Your task to perform on an android device: change notifications settings Image 0: 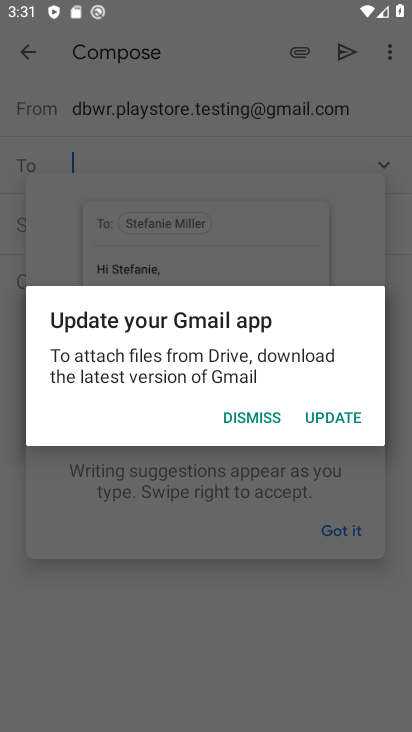
Step 0: press home button
Your task to perform on an android device: change notifications settings Image 1: 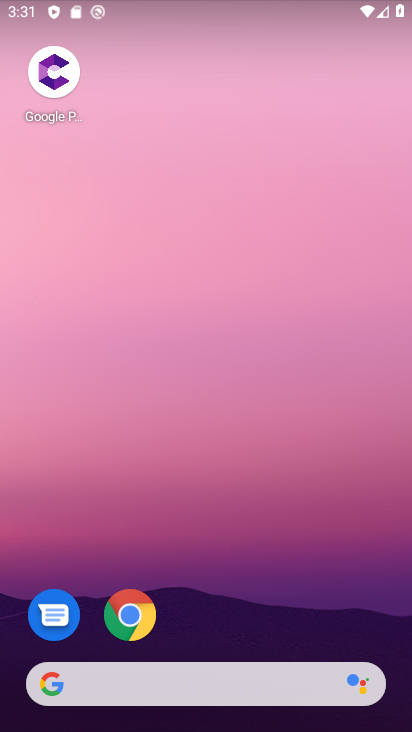
Step 1: drag from (261, 645) to (292, 3)
Your task to perform on an android device: change notifications settings Image 2: 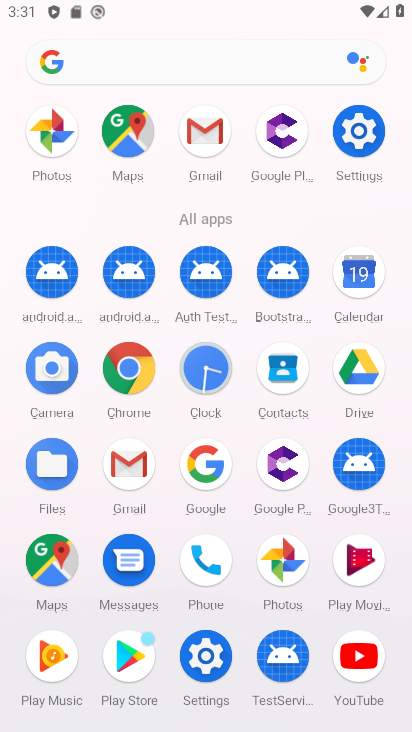
Step 2: click (353, 125)
Your task to perform on an android device: change notifications settings Image 3: 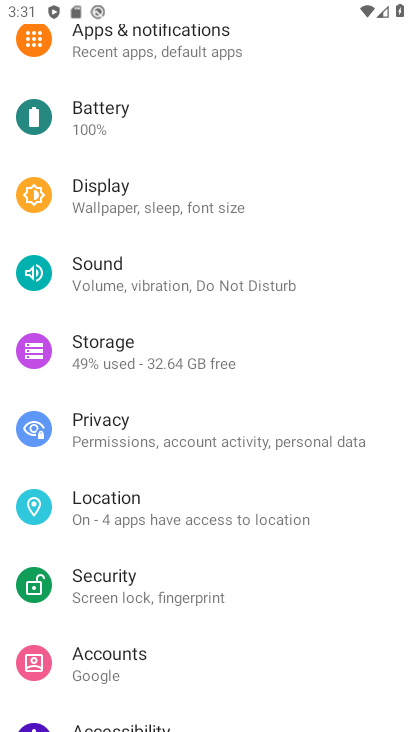
Step 3: click (158, 53)
Your task to perform on an android device: change notifications settings Image 4: 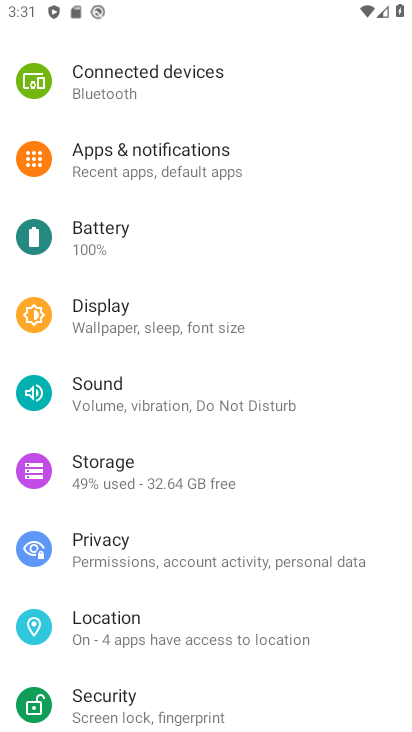
Step 4: click (124, 166)
Your task to perform on an android device: change notifications settings Image 5: 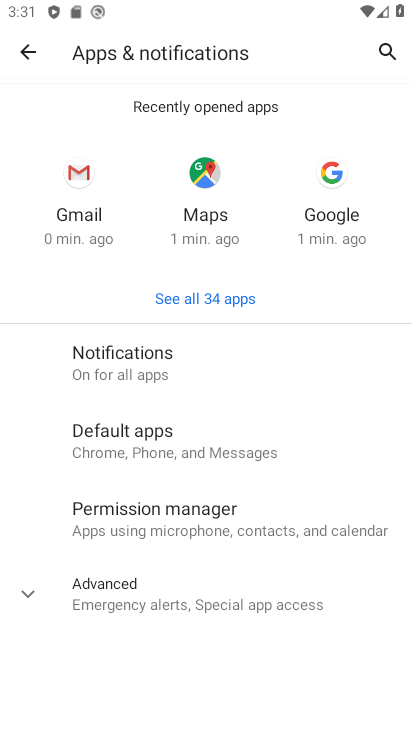
Step 5: click (114, 364)
Your task to perform on an android device: change notifications settings Image 6: 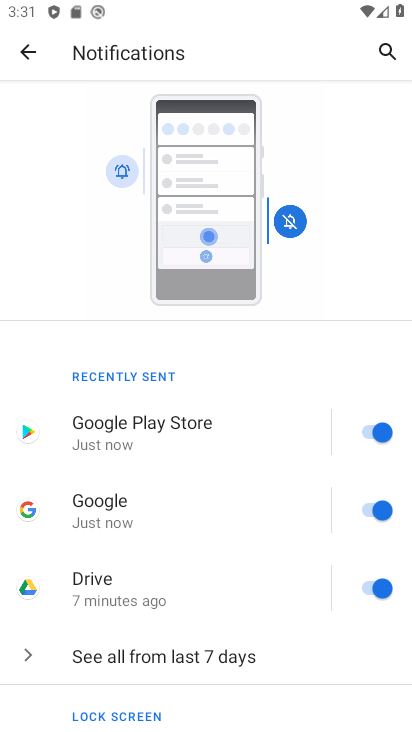
Step 6: click (178, 676)
Your task to perform on an android device: change notifications settings Image 7: 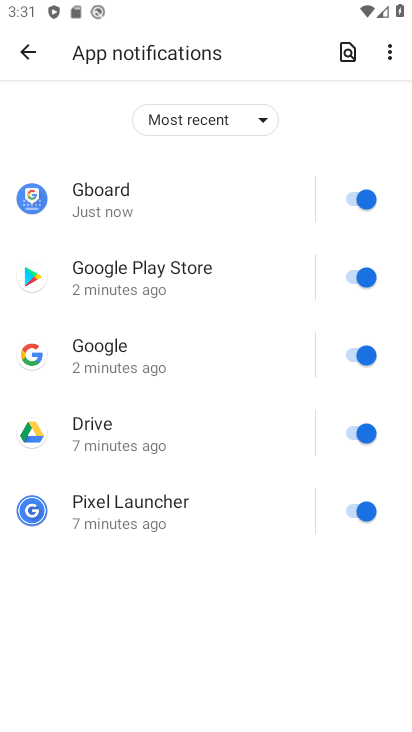
Step 7: click (262, 120)
Your task to perform on an android device: change notifications settings Image 8: 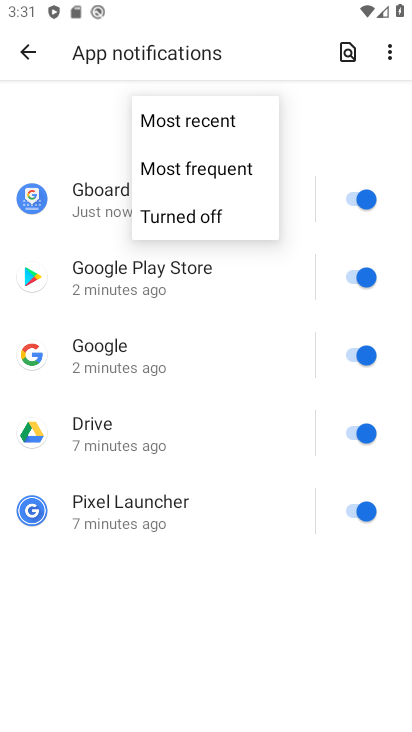
Step 8: click (179, 179)
Your task to perform on an android device: change notifications settings Image 9: 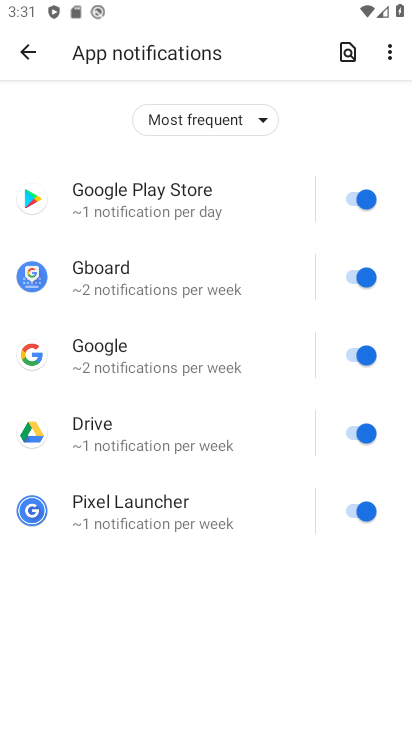
Step 9: task complete